Your task to perform on an android device: Open Wikipedia Image 0: 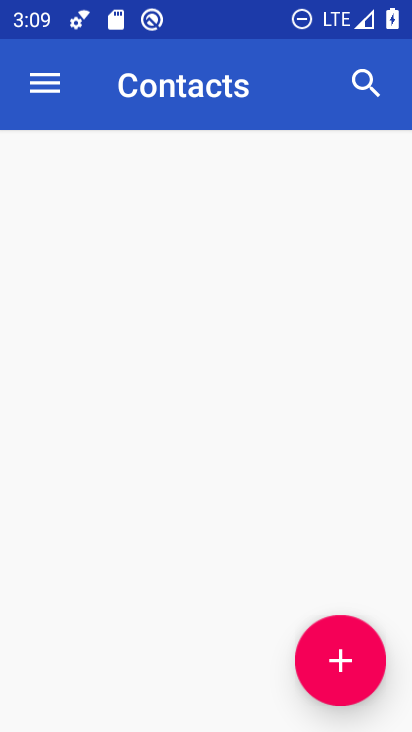
Step 0: press home button
Your task to perform on an android device: Open Wikipedia Image 1: 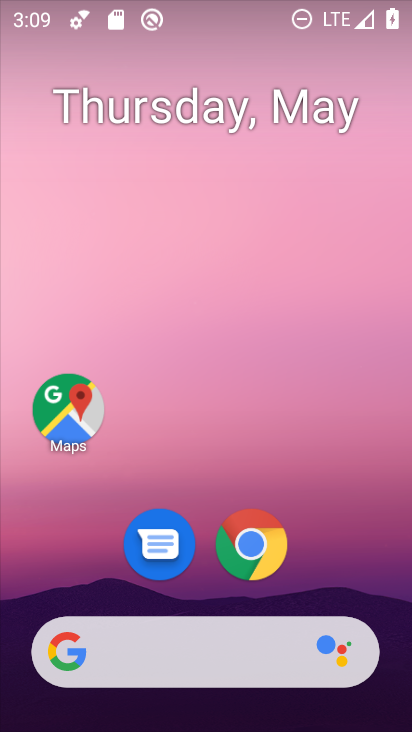
Step 1: click (253, 562)
Your task to perform on an android device: Open Wikipedia Image 2: 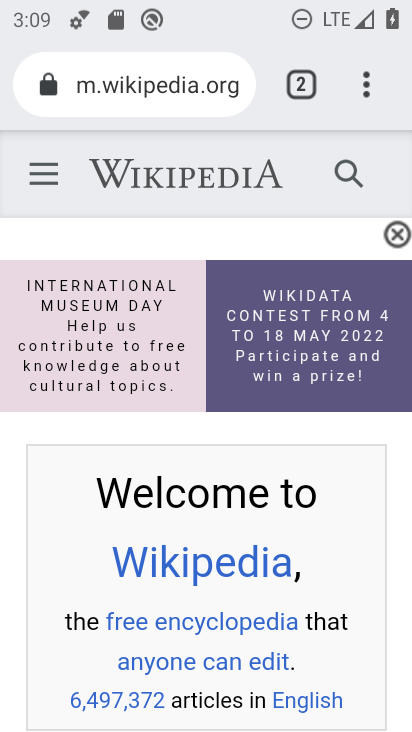
Step 2: task complete